Your task to perform on an android device: Open location settings Image 0: 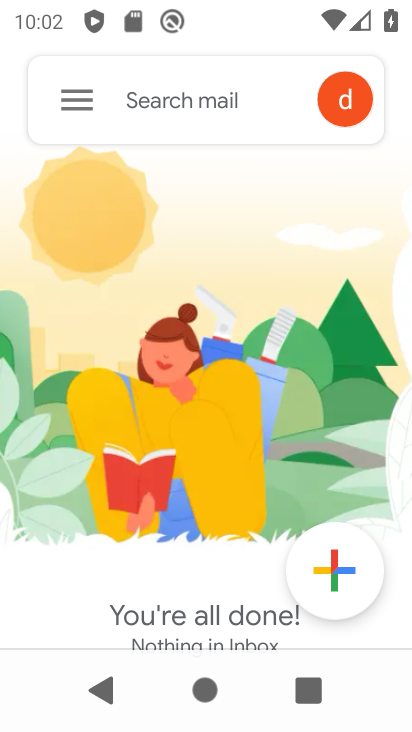
Step 0: press home button
Your task to perform on an android device: Open location settings Image 1: 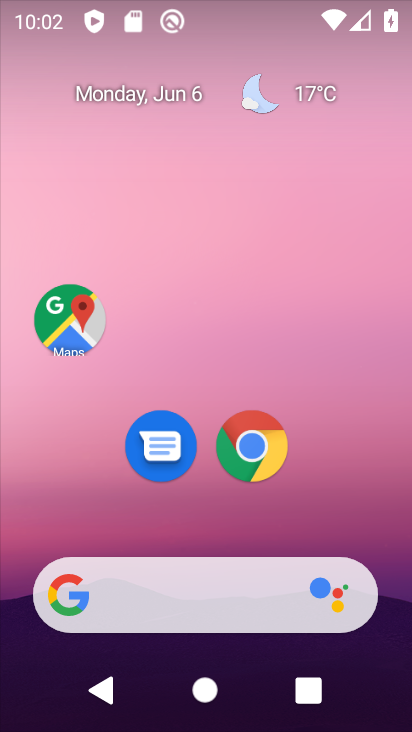
Step 1: drag from (173, 383) to (189, 57)
Your task to perform on an android device: Open location settings Image 2: 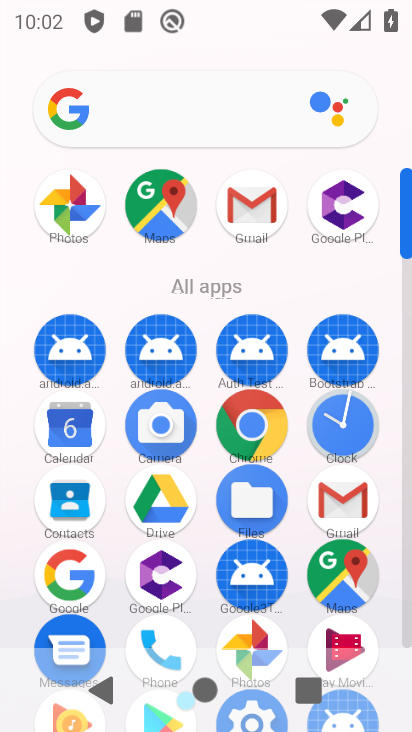
Step 2: drag from (190, 618) to (248, 42)
Your task to perform on an android device: Open location settings Image 3: 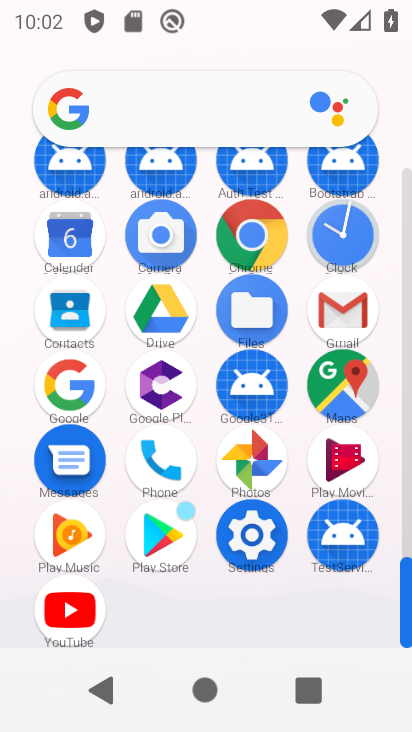
Step 3: click (243, 525)
Your task to perform on an android device: Open location settings Image 4: 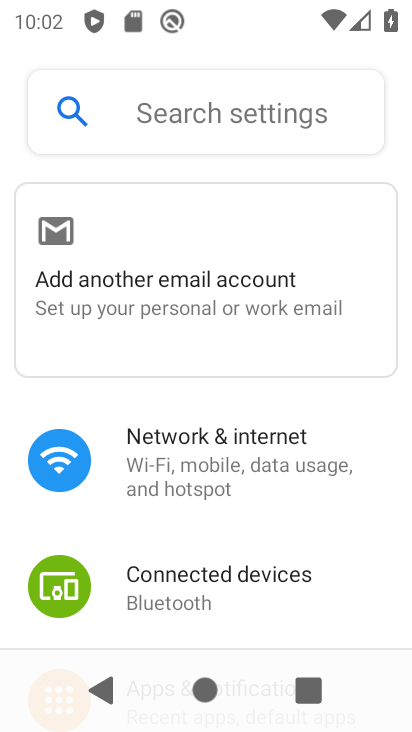
Step 4: drag from (189, 583) to (265, 61)
Your task to perform on an android device: Open location settings Image 5: 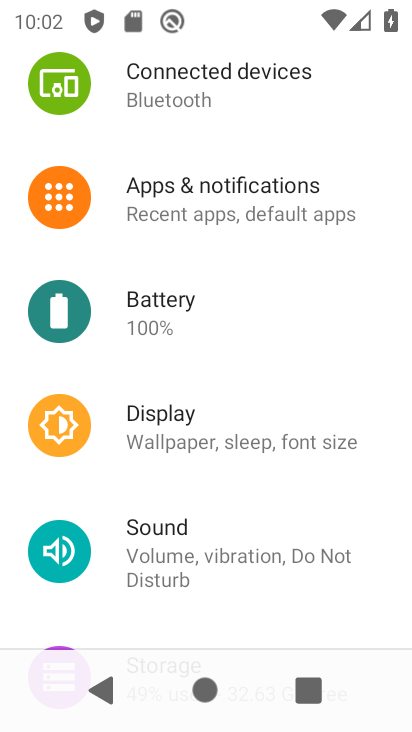
Step 5: drag from (124, 598) to (217, 96)
Your task to perform on an android device: Open location settings Image 6: 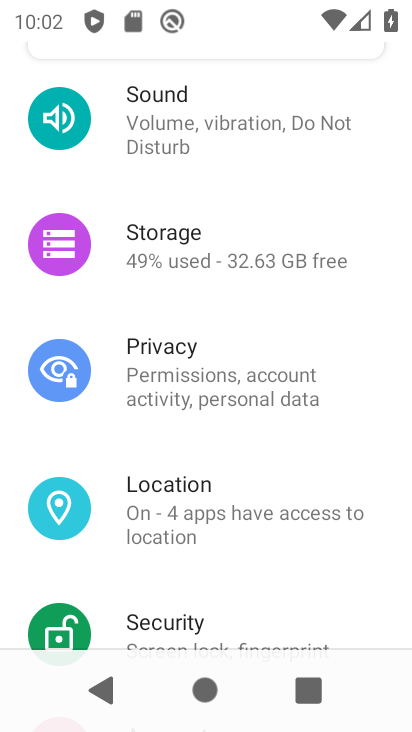
Step 6: click (190, 523)
Your task to perform on an android device: Open location settings Image 7: 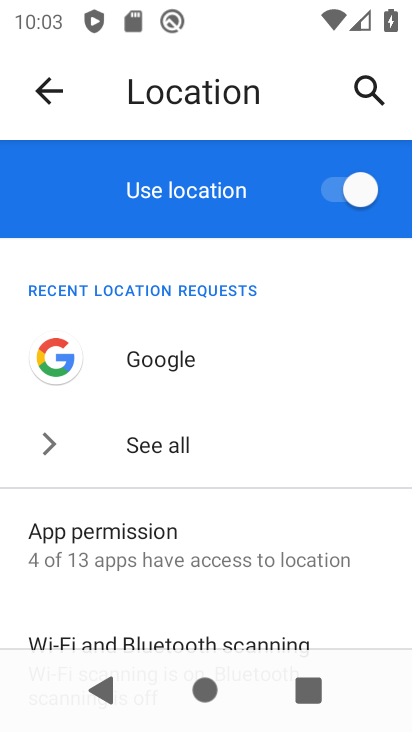
Step 7: task complete